Your task to perform on an android device: refresh tabs in the chrome app Image 0: 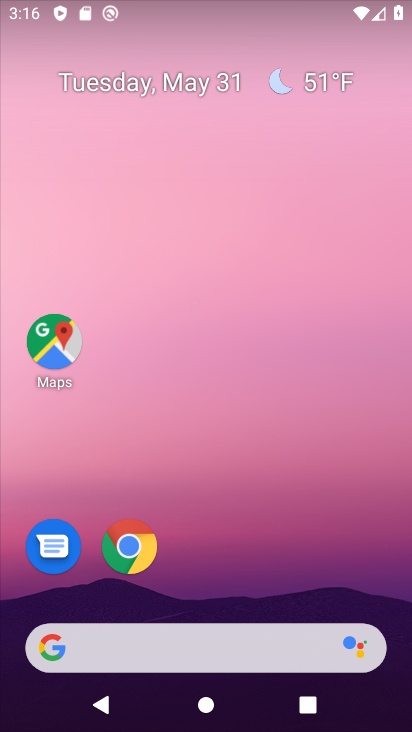
Step 0: click (140, 549)
Your task to perform on an android device: refresh tabs in the chrome app Image 1: 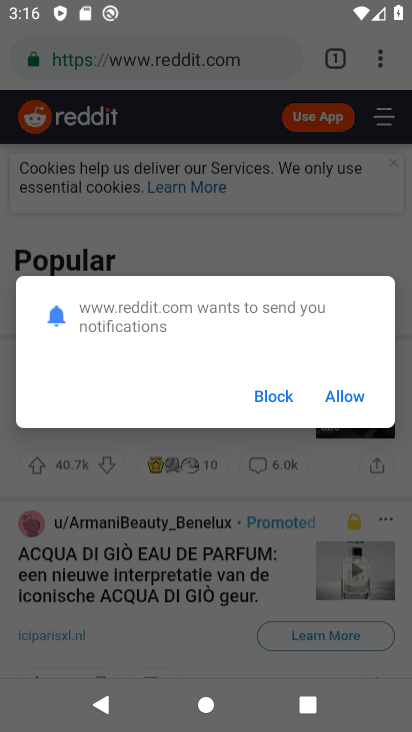
Step 1: click (277, 399)
Your task to perform on an android device: refresh tabs in the chrome app Image 2: 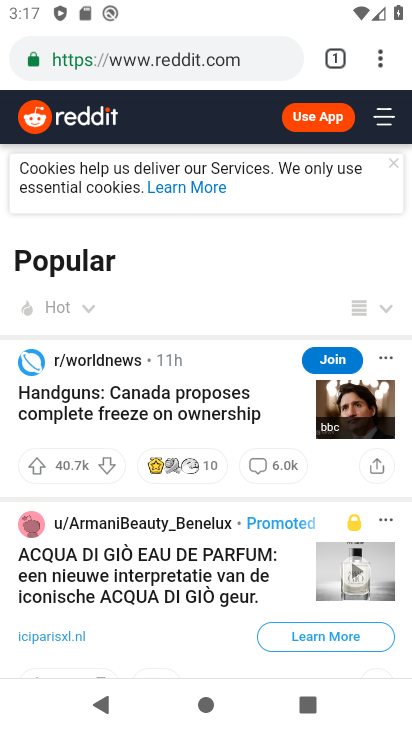
Step 2: click (383, 62)
Your task to perform on an android device: refresh tabs in the chrome app Image 3: 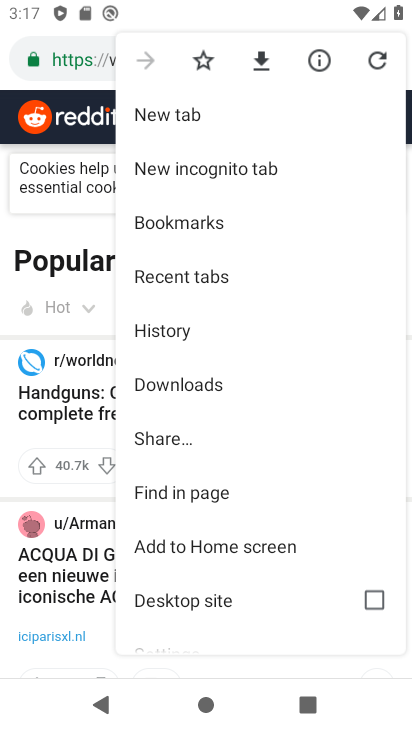
Step 3: click (377, 60)
Your task to perform on an android device: refresh tabs in the chrome app Image 4: 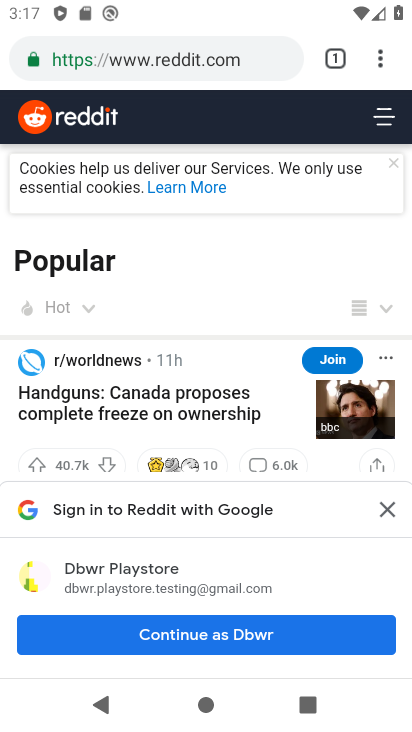
Step 4: task complete